Your task to perform on an android device: Open the stopwatch Image 0: 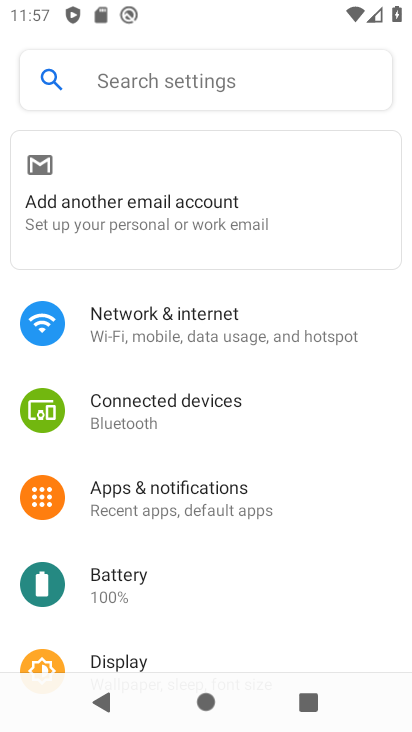
Step 0: press home button
Your task to perform on an android device: Open the stopwatch Image 1: 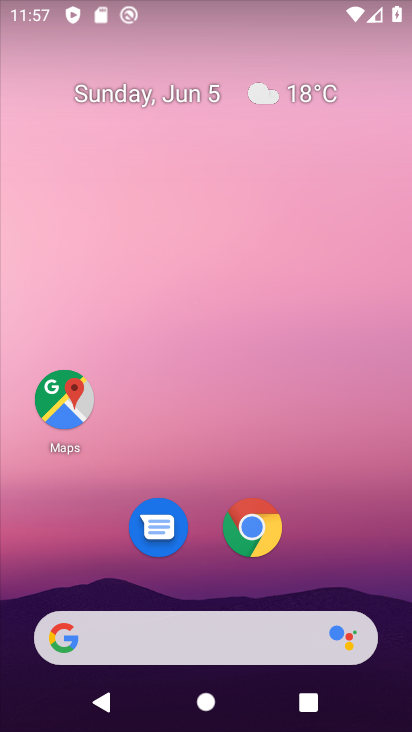
Step 1: drag from (213, 595) to (160, 13)
Your task to perform on an android device: Open the stopwatch Image 2: 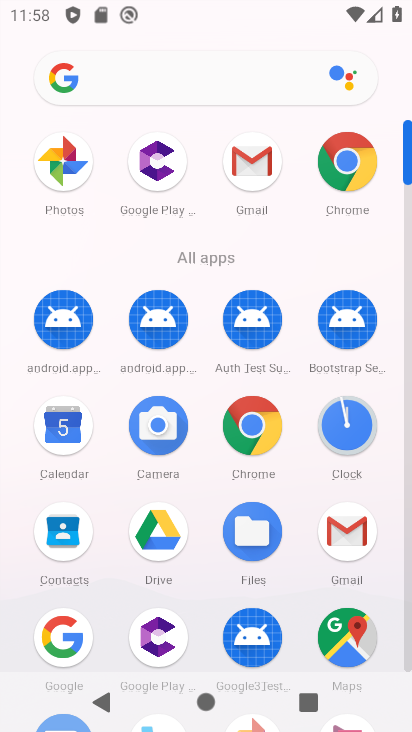
Step 2: click (337, 436)
Your task to perform on an android device: Open the stopwatch Image 3: 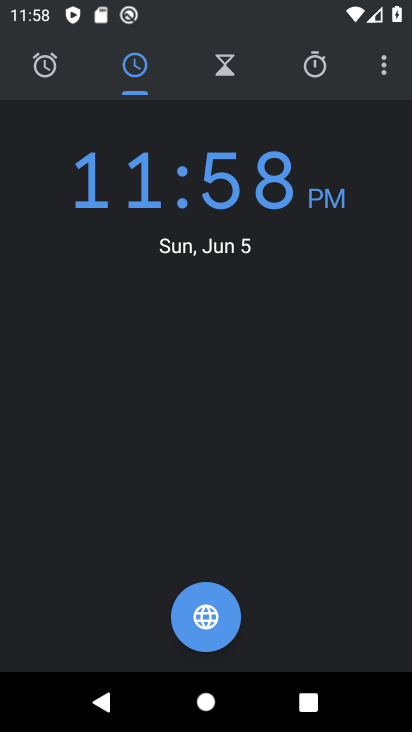
Step 3: click (304, 75)
Your task to perform on an android device: Open the stopwatch Image 4: 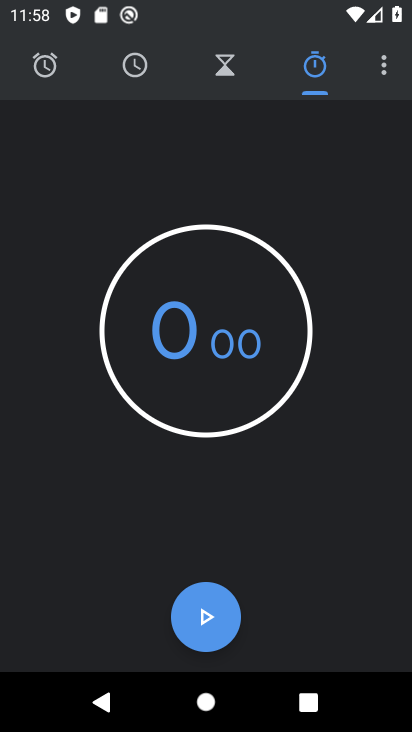
Step 4: task complete